Your task to perform on an android device: Open settings Image 0: 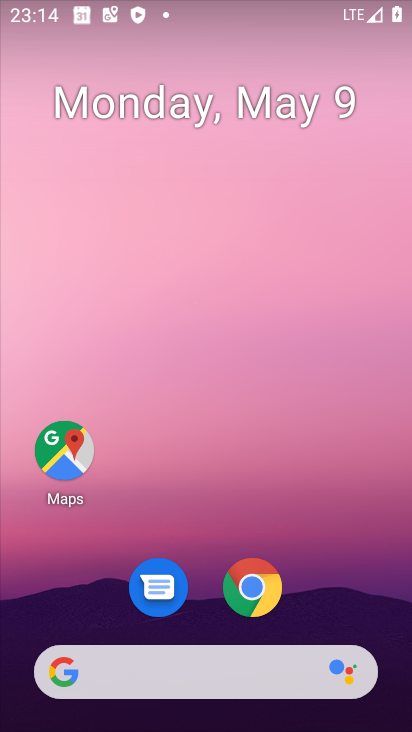
Step 0: drag from (212, 609) to (307, 166)
Your task to perform on an android device: Open settings Image 1: 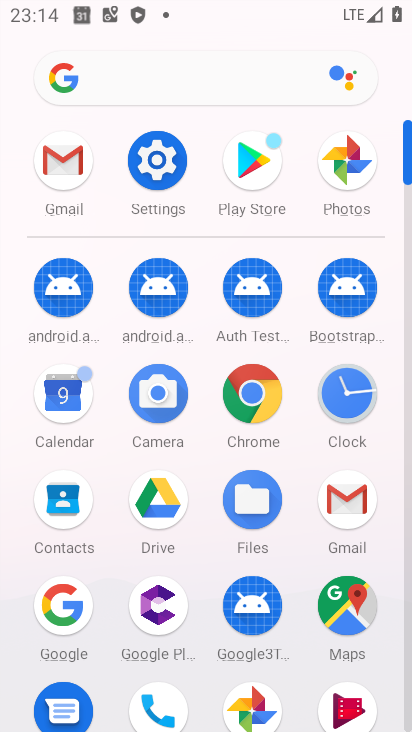
Step 1: click (144, 139)
Your task to perform on an android device: Open settings Image 2: 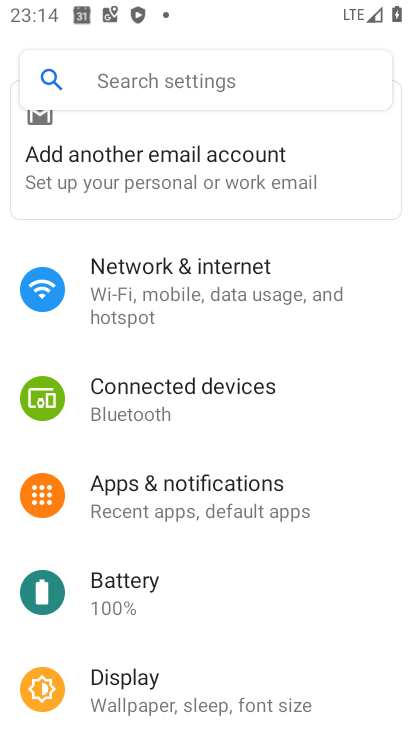
Step 2: task complete